Your task to perform on an android device: turn on sleep mode Image 0: 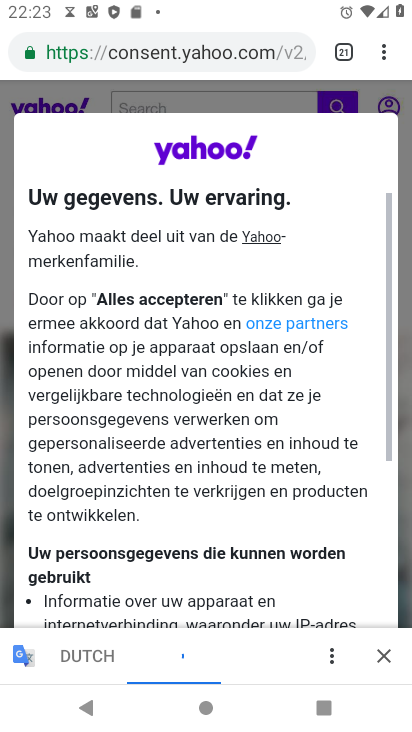
Step 0: press home button
Your task to perform on an android device: turn on sleep mode Image 1: 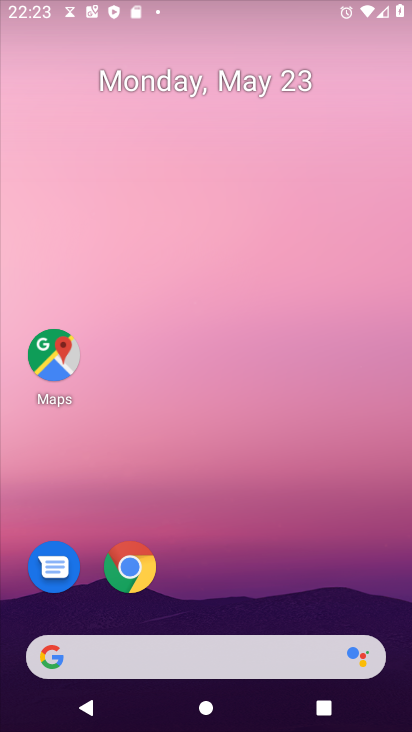
Step 1: drag from (202, 575) to (205, 136)
Your task to perform on an android device: turn on sleep mode Image 2: 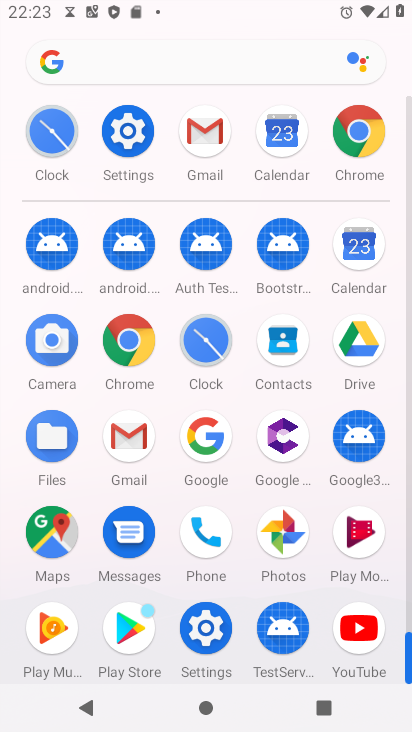
Step 2: click (125, 128)
Your task to perform on an android device: turn on sleep mode Image 3: 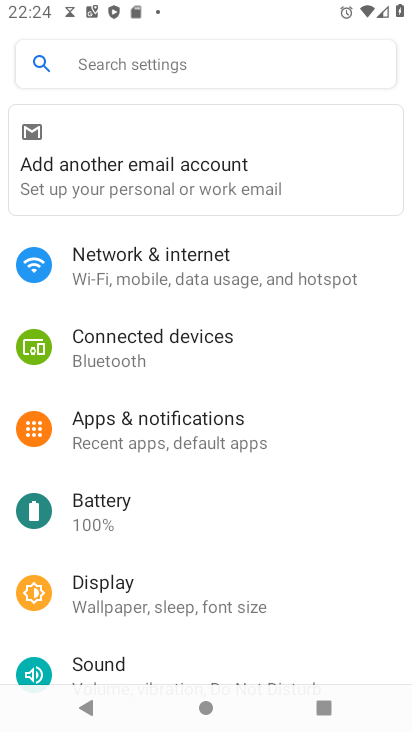
Step 3: task complete